Your task to perform on an android device: open chrome privacy settings Image 0: 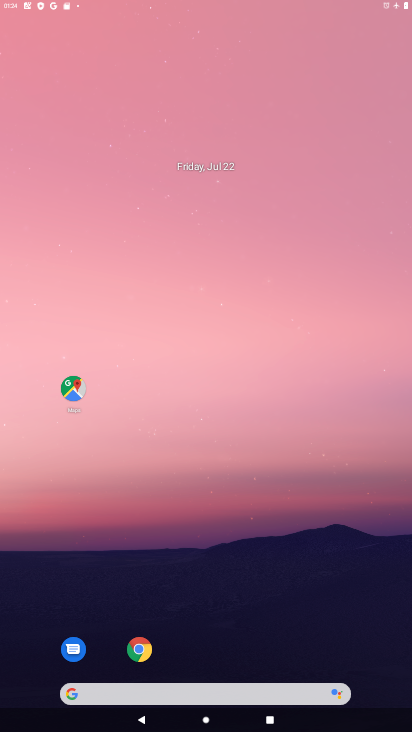
Step 0: drag from (291, 644) to (278, 94)
Your task to perform on an android device: open chrome privacy settings Image 1: 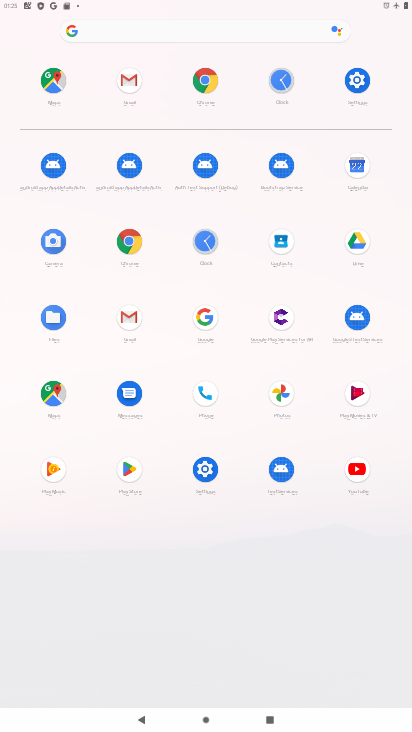
Step 1: click (202, 79)
Your task to perform on an android device: open chrome privacy settings Image 2: 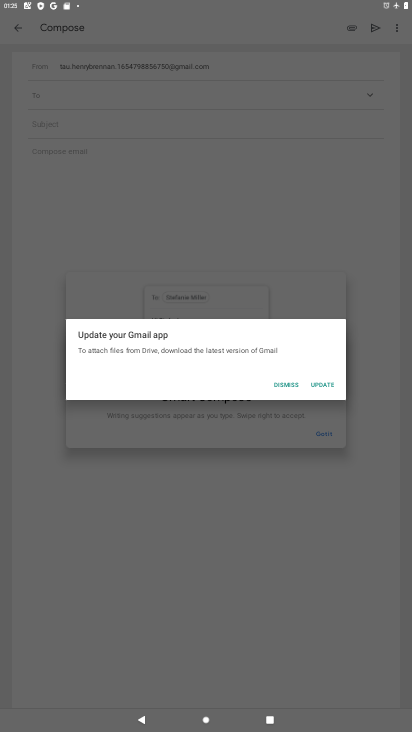
Step 2: press back button
Your task to perform on an android device: open chrome privacy settings Image 3: 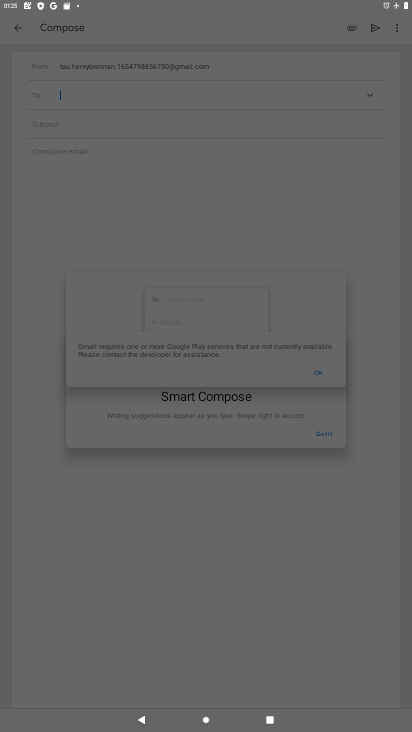
Step 3: press back button
Your task to perform on an android device: open chrome privacy settings Image 4: 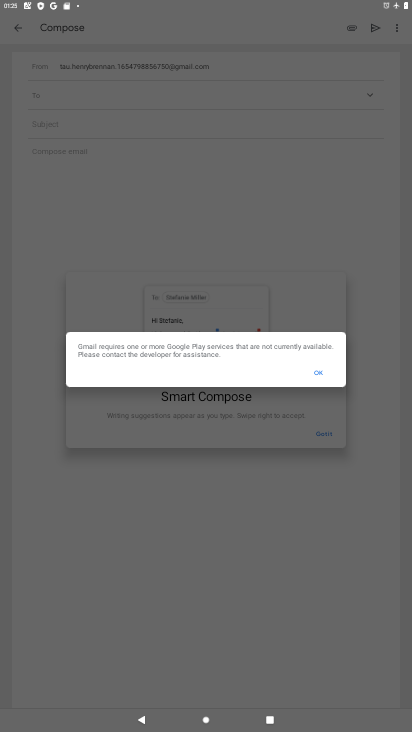
Step 4: press back button
Your task to perform on an android device: open chrome privacy settings Image 5: 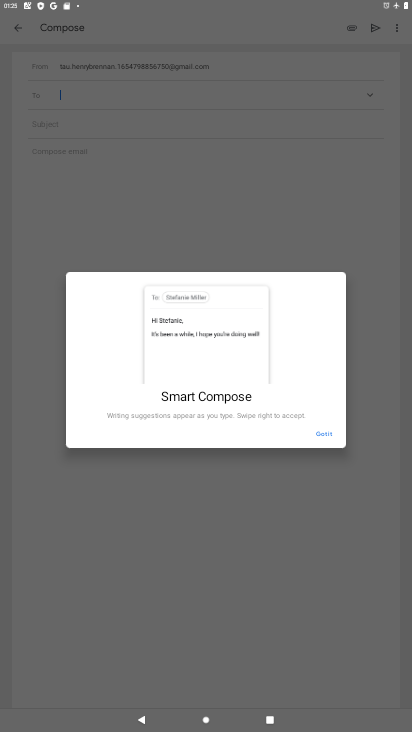
Step 5: press home button
Your task to perform on an android device: open chrome privacy settings Image 6: 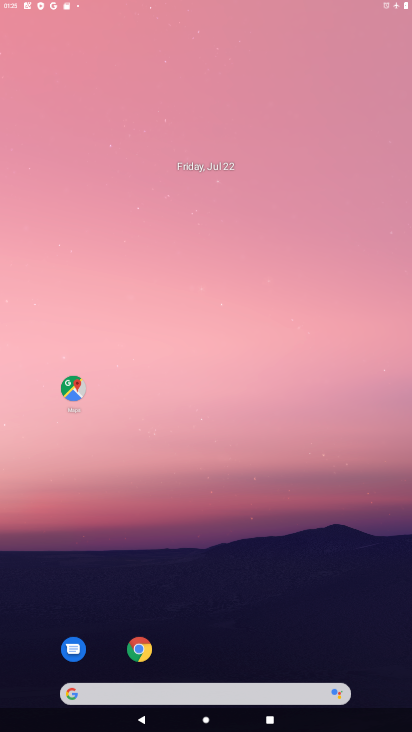
Step 6: press home button
Your task to perform on an android device: open chrome privacy settings Image 7: 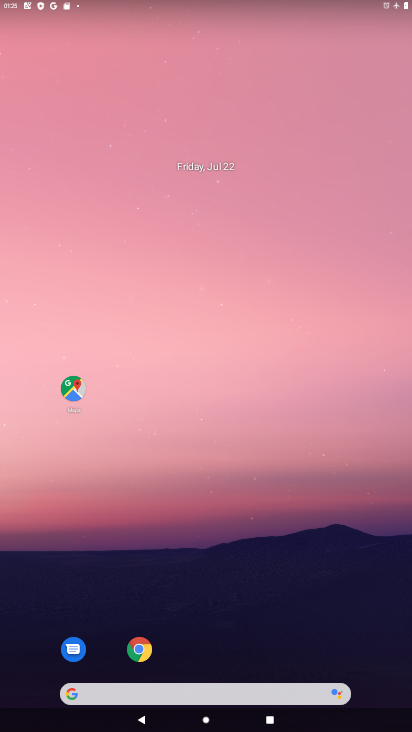
Step 7: drag from (290, 587) to (264, 98)
Your task to perform on an android device: open chrome privacy settings Image 8: 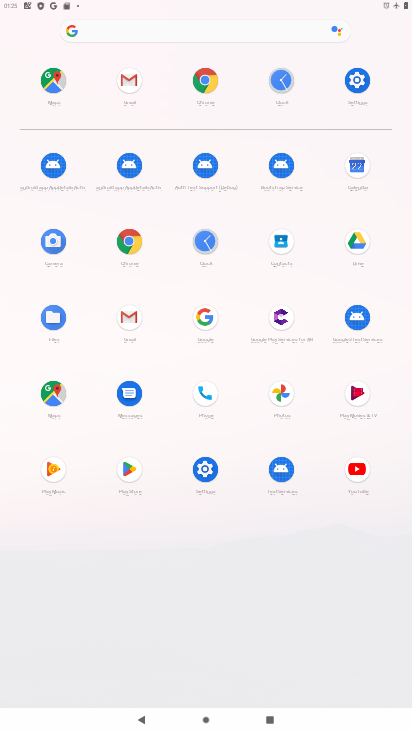
Step 8: click (204, 83)
Your task to perform on an android device: open chrome privacy settings Image 9: 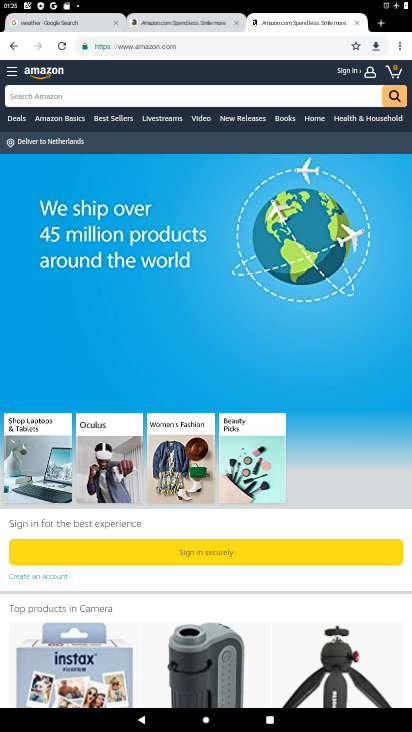
Step 9: click (398, 43)
Your task to perform on an android device: open chrome privacy settings Image 10: 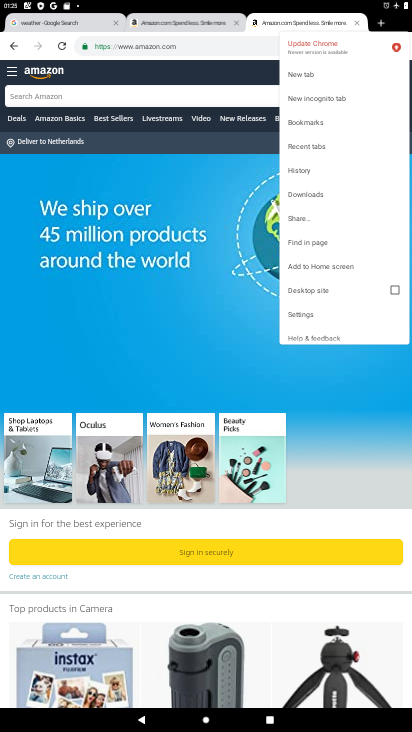
Step 10: click (303, 314)
Your task to perform on an android device: open chrome privacy settings Image 11: 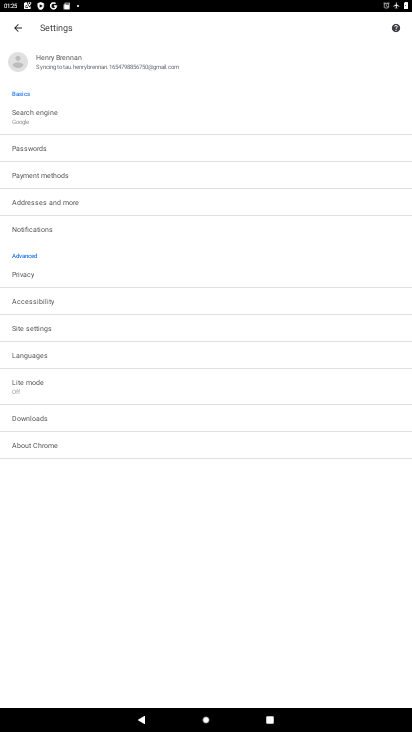
Step 11: click (16, 272)
Your task to perform on an android device: open chrome privacy settings Image 12: 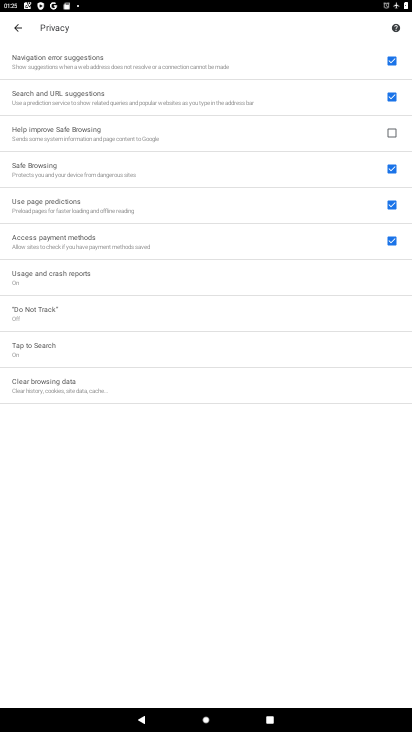
Step 12: task complete